Your task to perform on an android device: Add "sony triple a" to the cart on walmart.com Image 0: 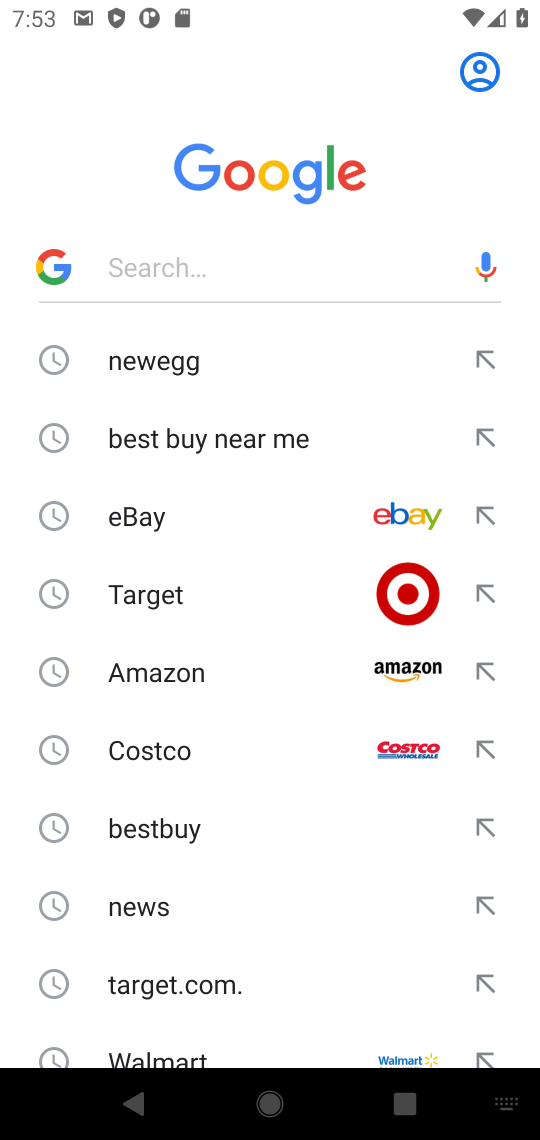
Step 0: press home button
Your task to perform on an android device: Add "sony triple a" to the cart on walmart.com Image 1: 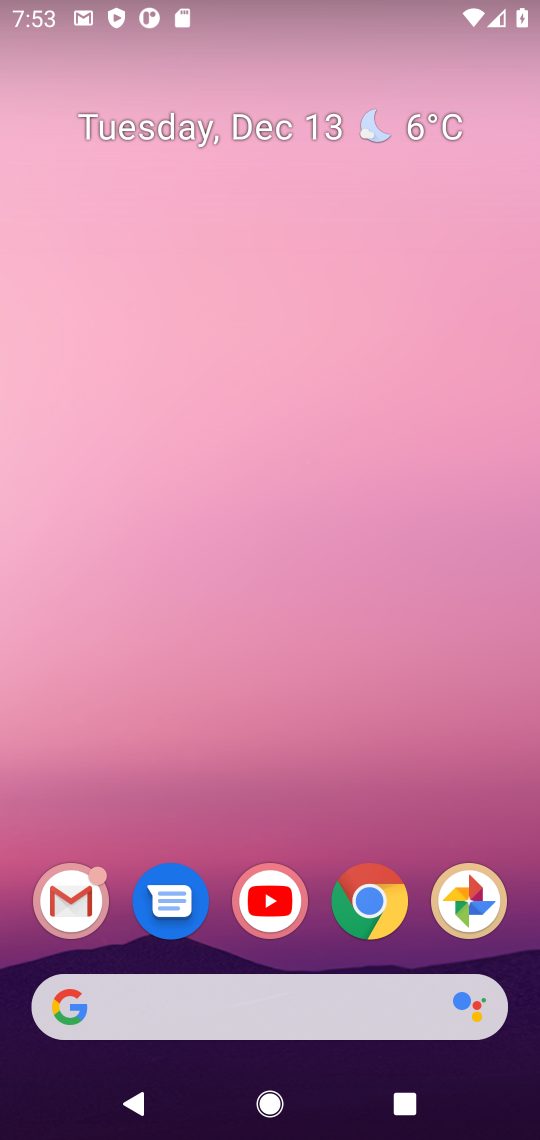
Step 1: click (381, 917)
Your task to perform on an android device: Add "sony triple a" to the cart on walmart.com Image 2: 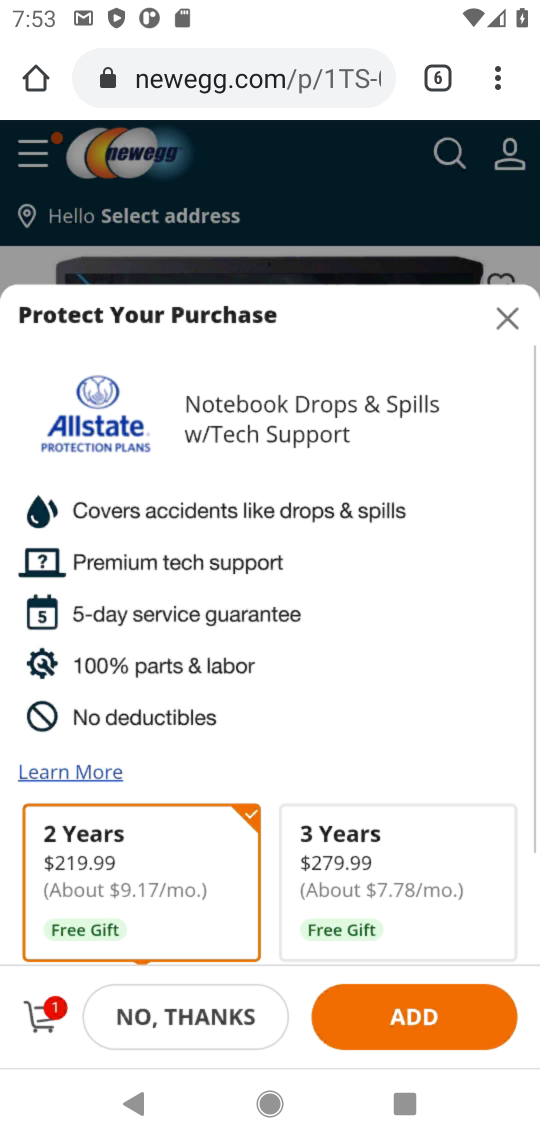
Step 2: click (443, 85)
Your task to perform on an android device: Add "sony triple a" to the cart on walmart.com Image 3: 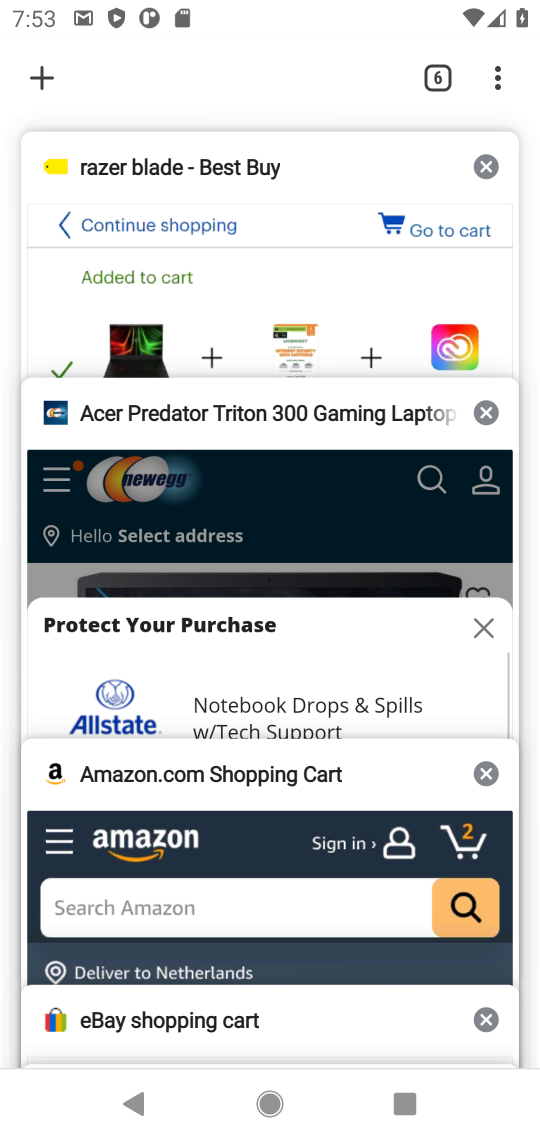
Step 3: drag from (190, 1029) to (223, 559)
Your task to perform on an android device: Add "sony triple a" to the cart on walmart.com Image 4: 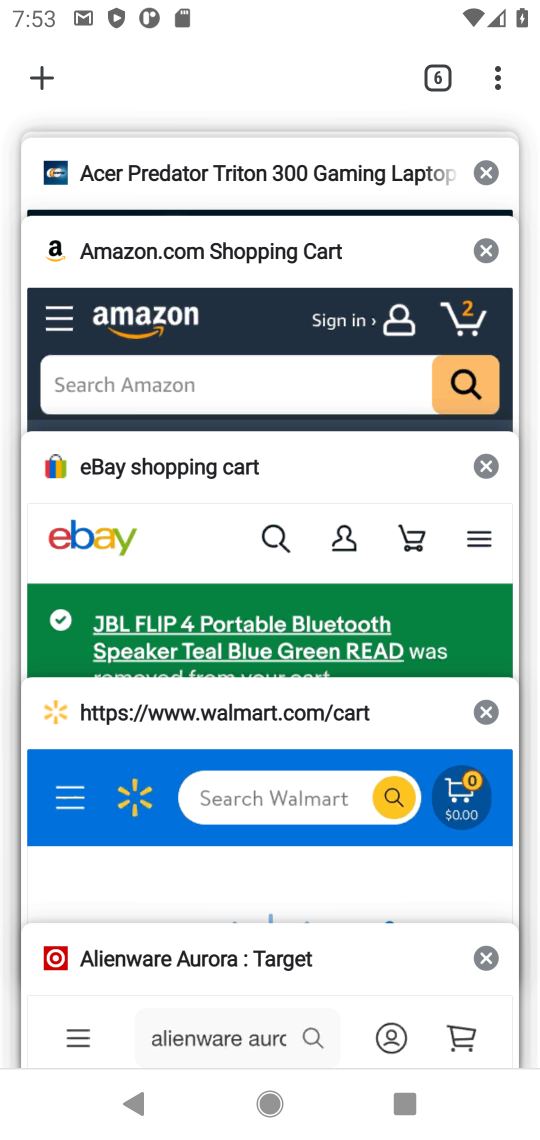
Step 4: click (135, 844)
Your task to perform on an android device: Add "sony triple a" to the cart on walmart.com Image 5: 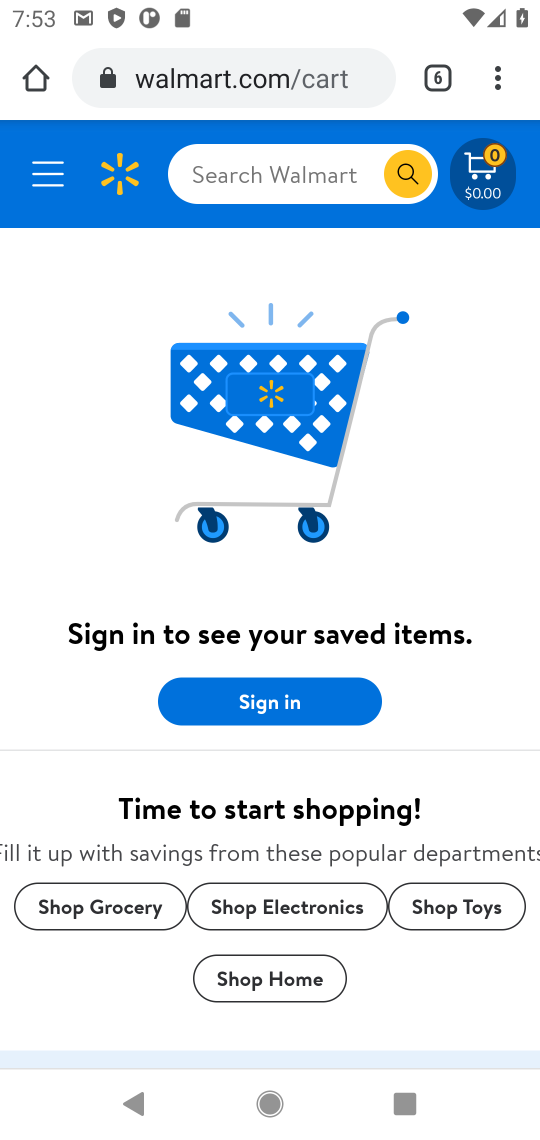
Step 5: click (255, 190)
Your task to perform on an android device: Add "sony triple a" to the cart on walmart.com Image 6: 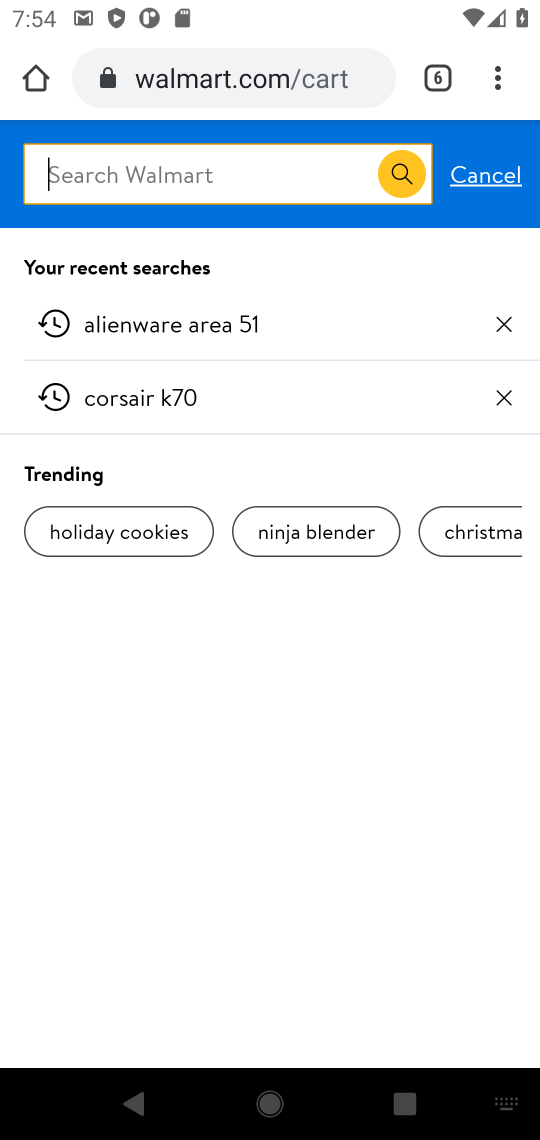
Step 6: type "sony triple a"
Your task to perform on an android device: Add "sony triple a" to the cart on walmart.com Image 7: 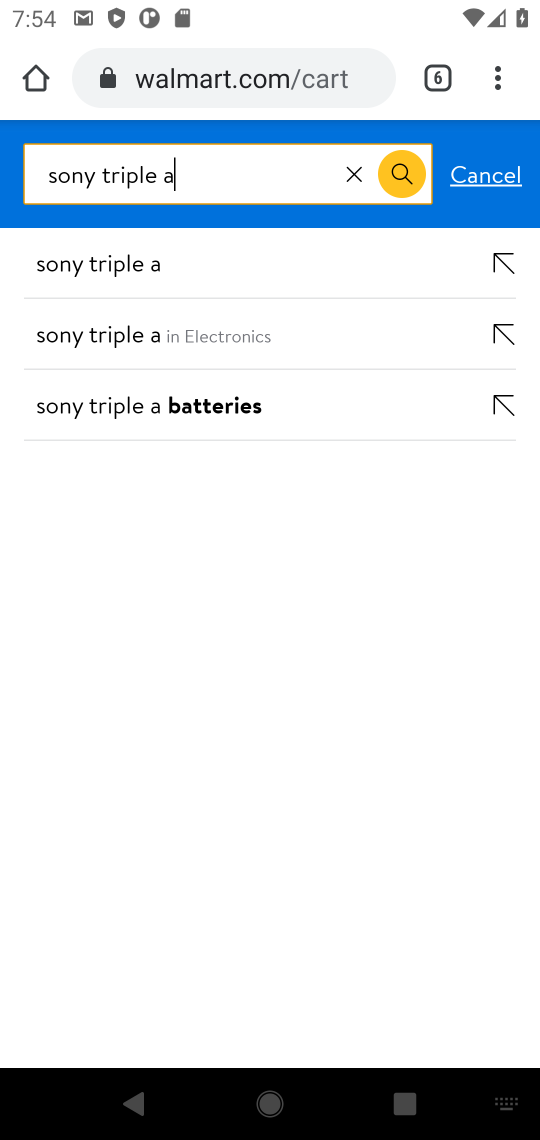
Step 7: click (65, 326)
Your task to perform on an android device: Add "sony triple a" to the cart on walmart.com Image 8: 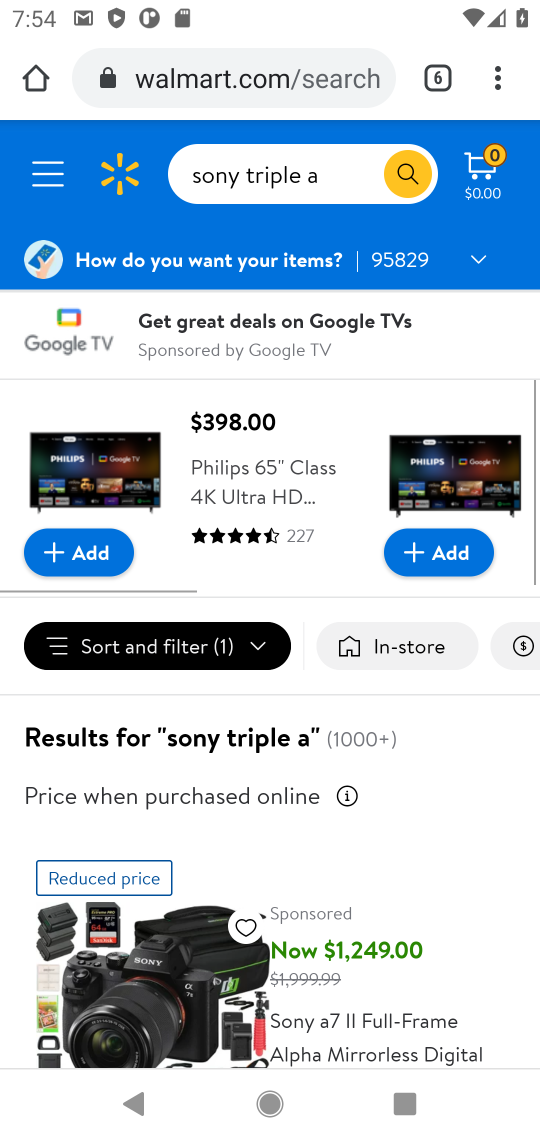
Step 8: drag from (399, 944) to (396, 613)
Your task to perform on an android device: Add "sony triple a" to the cart on walmart.com Image 9: 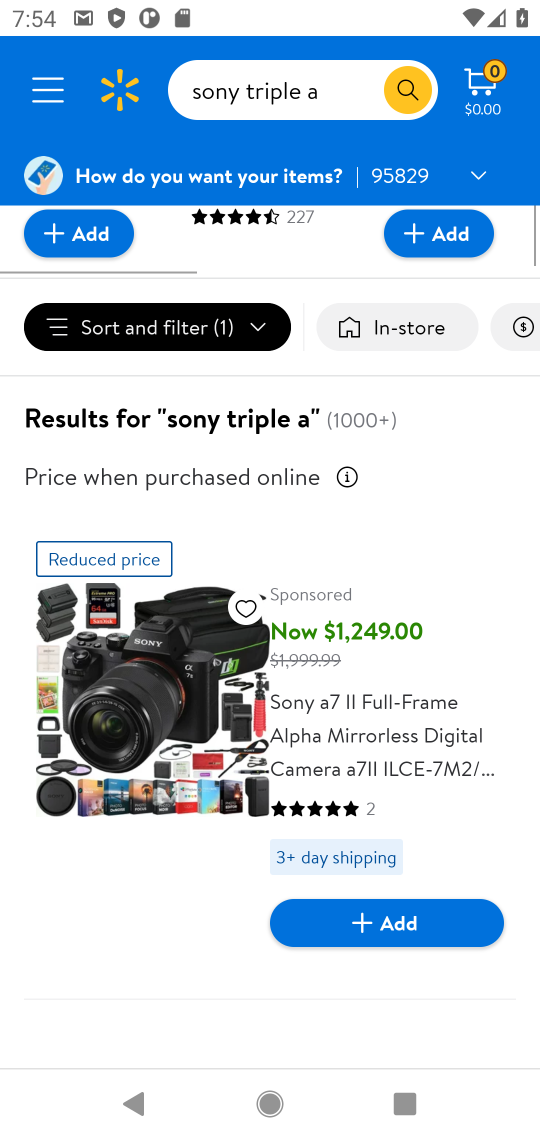
Step 9: drag from (222, 971) to (285, 548)
Your task to perform on an android device: Add "sony triple a" to the cart on walmart.com Image 10: 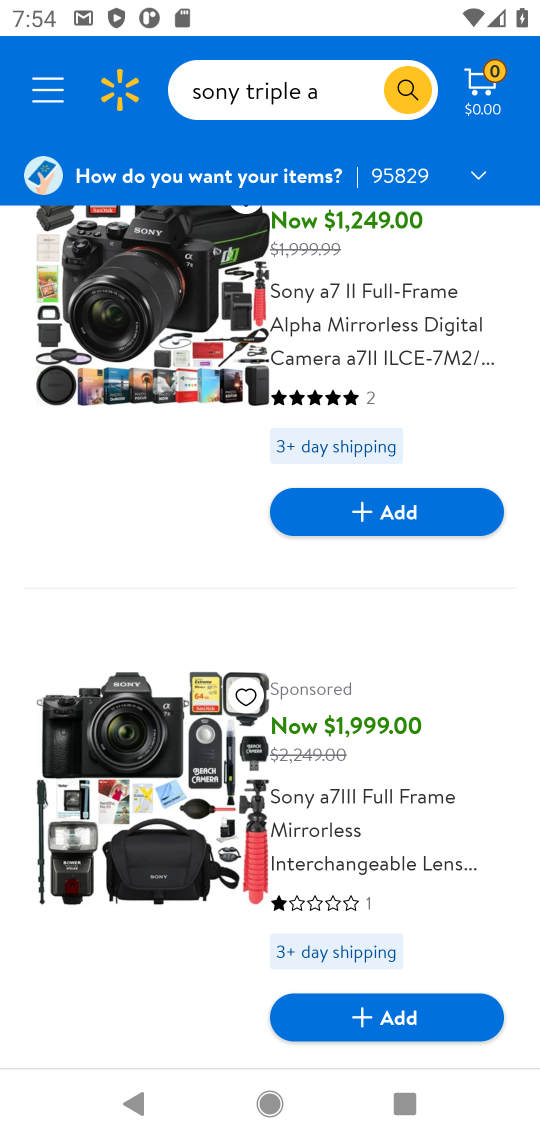
Step 10: drag from (202, 990) to (360, 273)
Your task to perform on an android device: Add "sony triple a" to the cart on walmart.com Image 11: 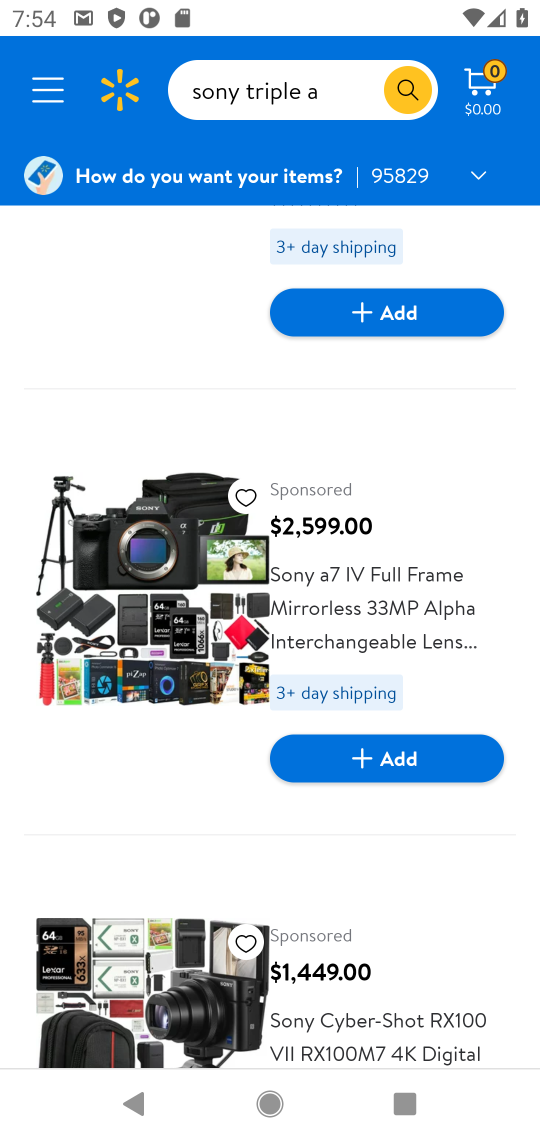
Step 11: drag from (201, 331) to (235, 1095)
Your task to perform on an android device: Add "sony triple a" to the cart on walmart.com Image 12: 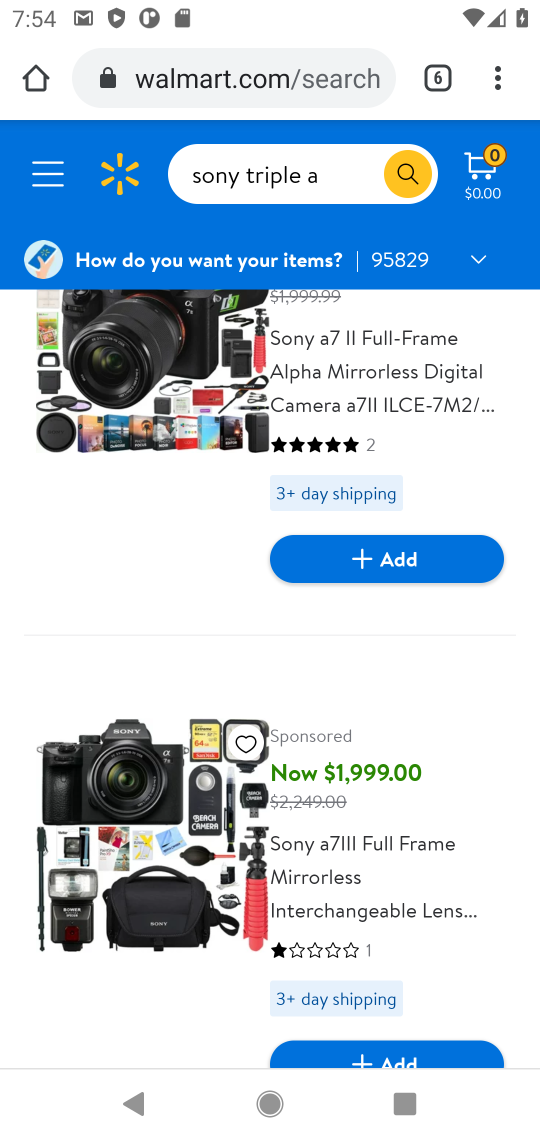
Step 12: click (346, 183)
Your task to perform on an android device: Add "sony triple a" to the cart on walmart.com Image 13: 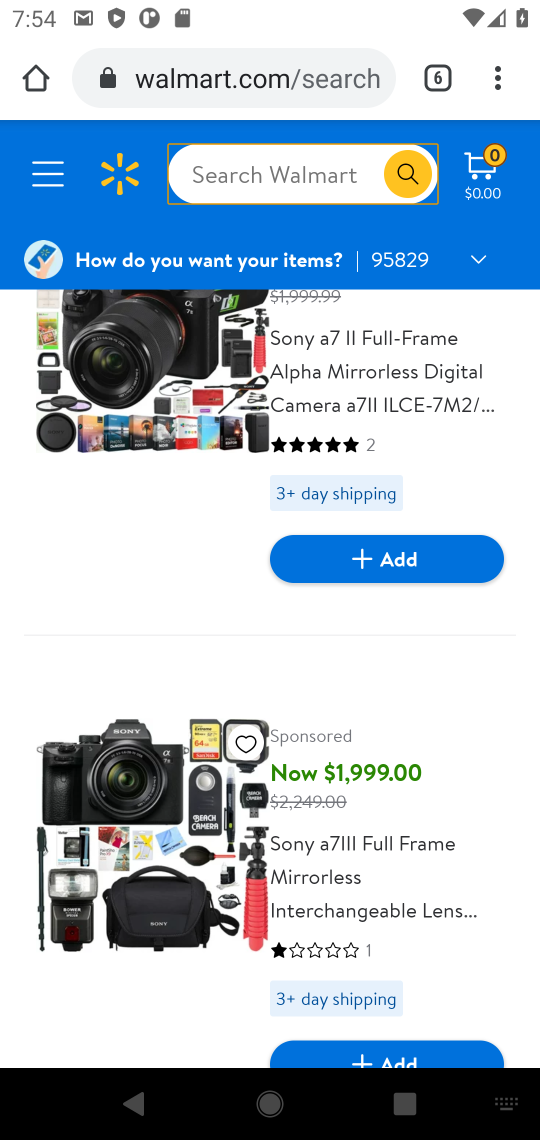
Step 13: type "sony triple a batteries"
Your task to perform on an android device: Add "sony triple a" to the cart on walmart.com Image 14: 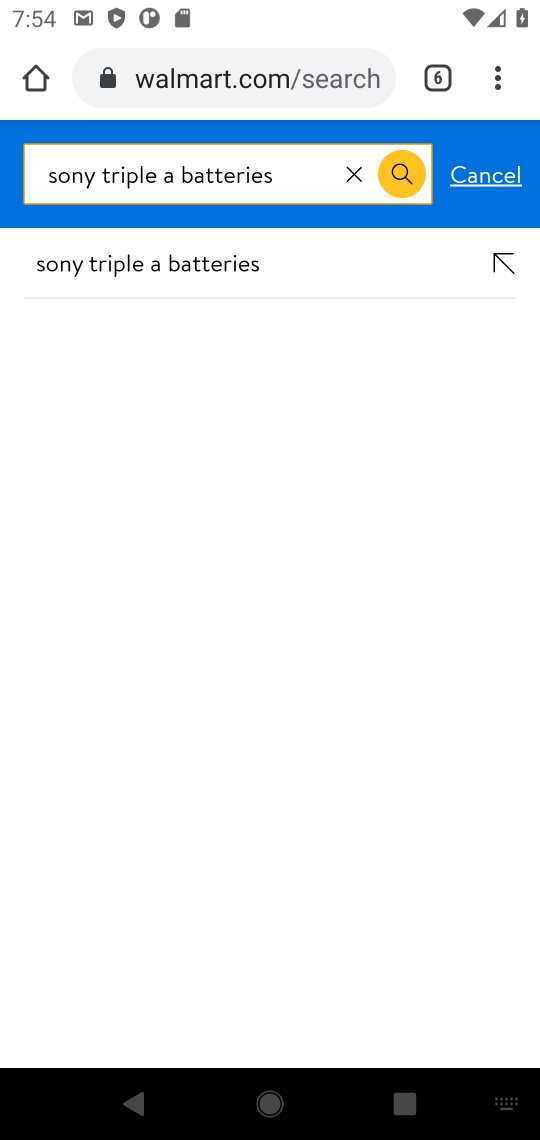
Step 14: click (226, 267)
Your task to perform on an android device: Add "sony triple a" to the cart on walmart.com Image 15: 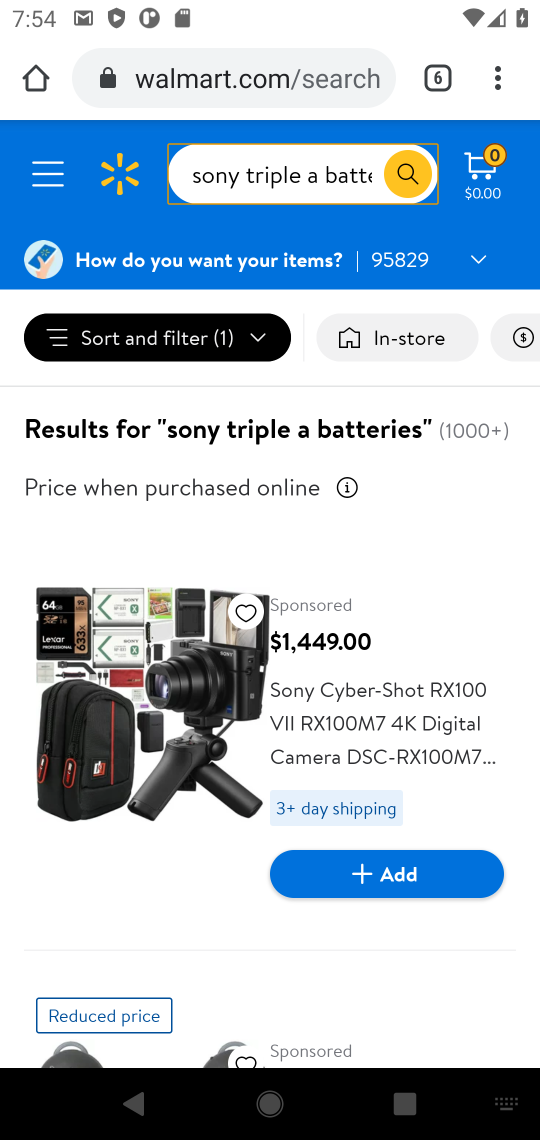
Step 15: drag from (279, 988) to (334, 105)
Your task to perform on an android device: Add "sony triple a" to the cart on walmart.com Image 16: 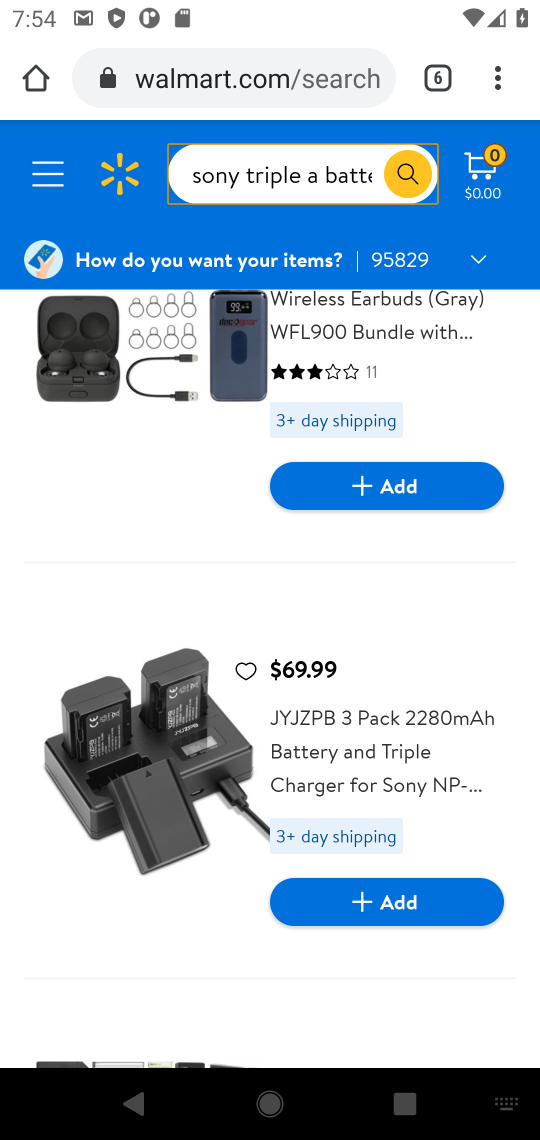
Step 16: click (138, 592)
Your task to perform on an android device: Add "sony triple a" to the cart on walmart.com Image 17: 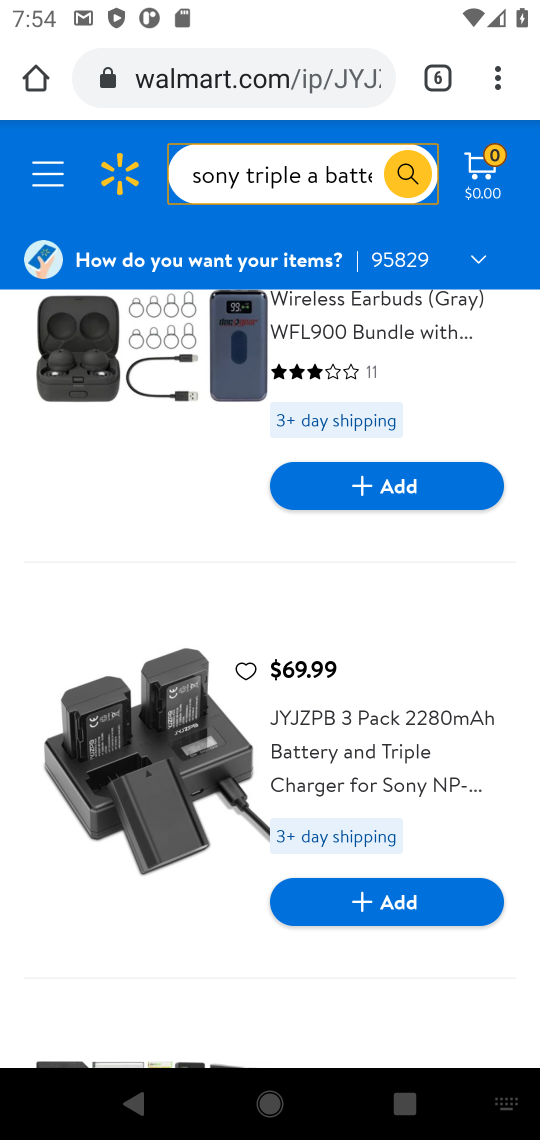
Step 17: task complete